Your task to perform on an android device: turn notification dots on Image 0: 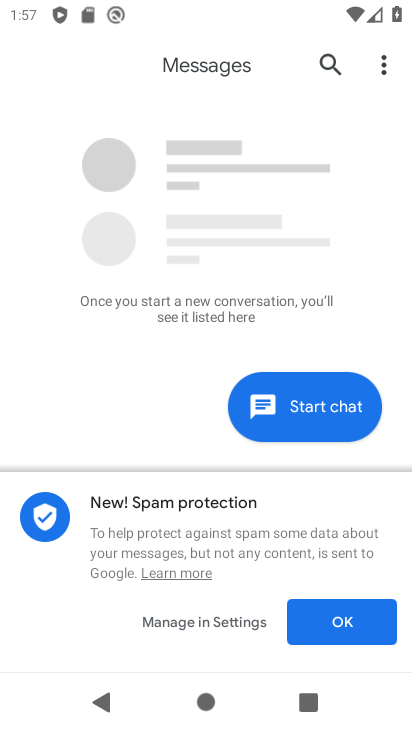
Step 0: press home button
Your task to perform on an android device: turn notification dots on Image 1: 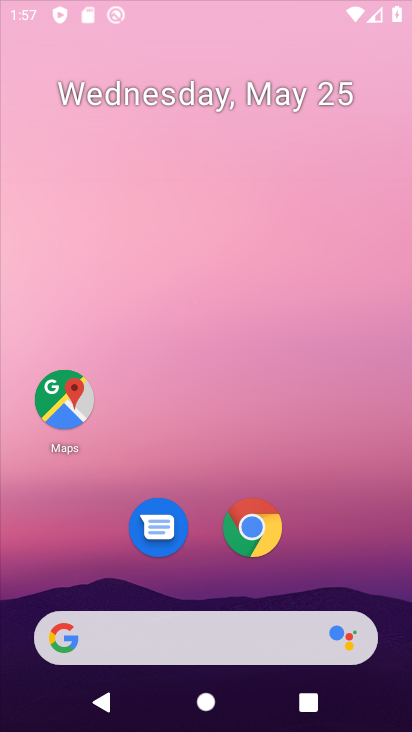
Step 1: drag from (218, 529) to (340, 10)
Your task to perform on an android device: turn notification dots on Image 2: 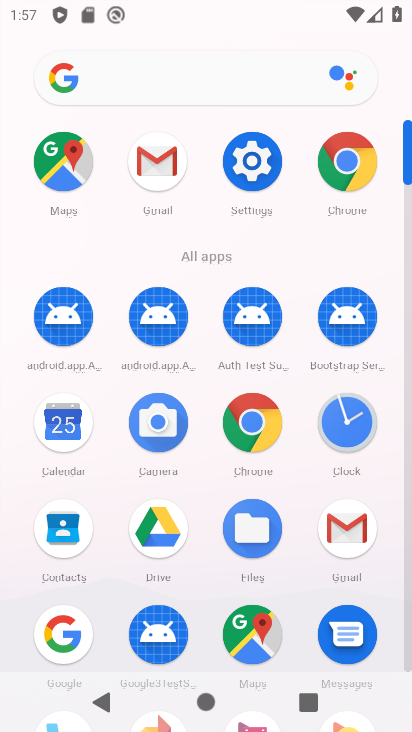
Step 2: click (284, 151)
Your task to perform on an android device: turn notification dots on Image 3: 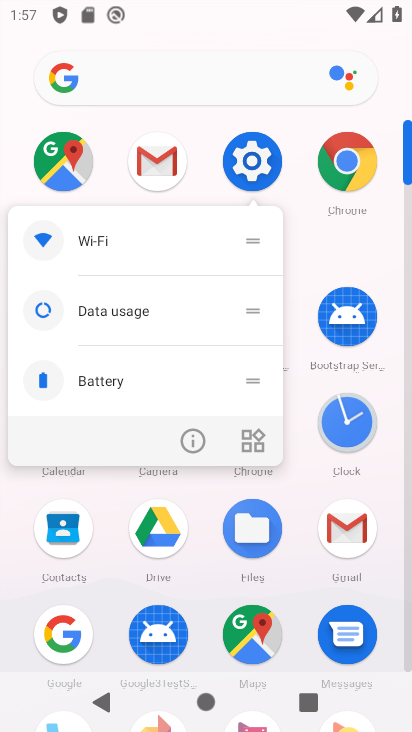
Step 3: click (184, 444)
Your task to perform on an android device: turn notification dots on Image 4: 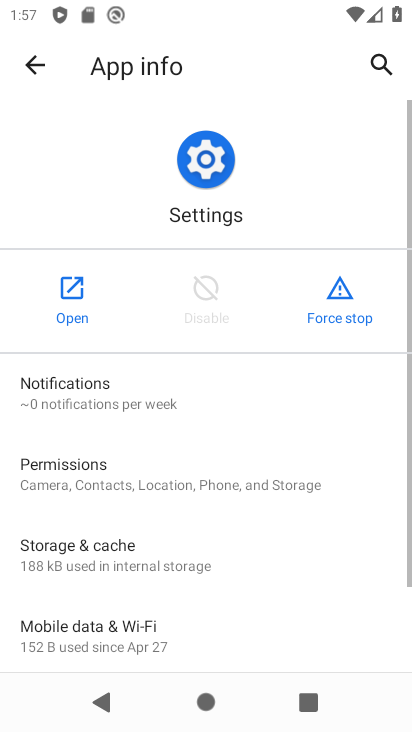
Step 4: click (54, 308)
Your task to perform on an android device: turn notification dots on Image 5: 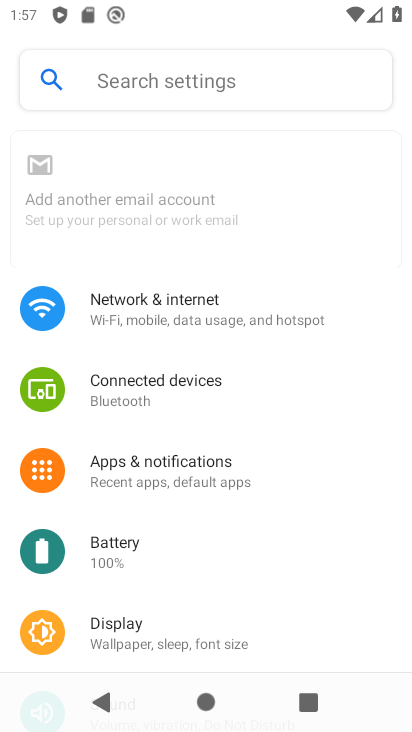
Step 5: drag from (242, 668) to (324, 317)
Your task to perform on an android device: turn notification dots on Image 6: 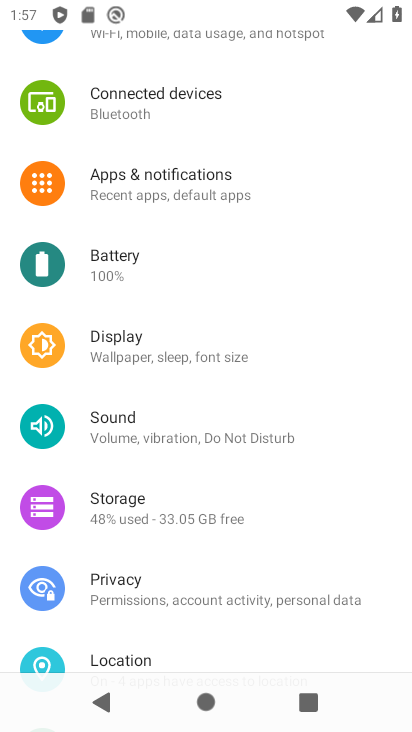
Step 6: click (183, 193)
Your task to perform on an android device: turn notification dots on Image 7: 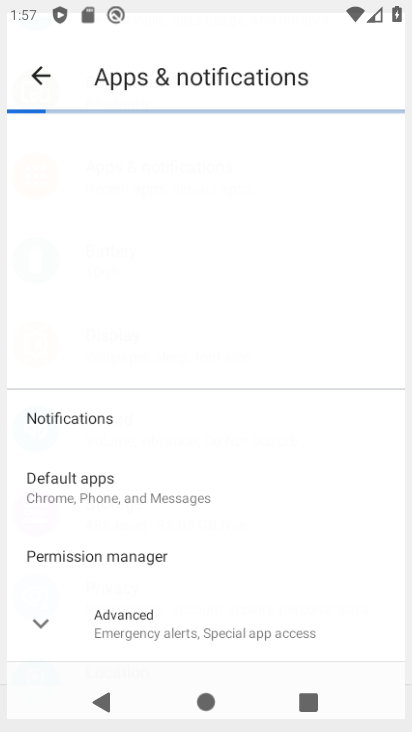
Step 7: drag from (264, 527) to (326, 185)
Your task to perform on an android device: turn notification dots on Image 8: 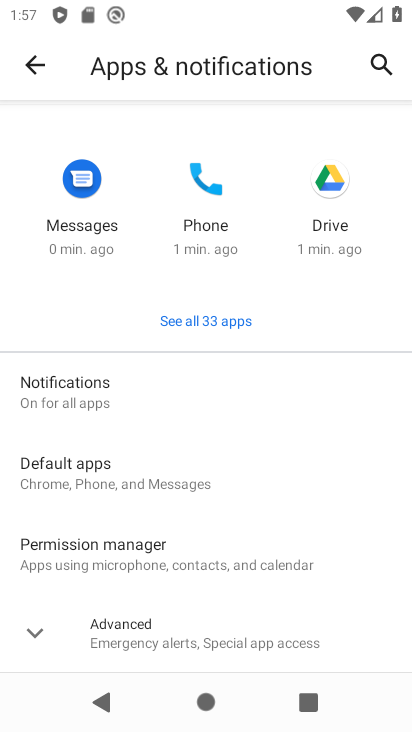
Step 8: click (124, 398)
Your task to perform on an android device: turn notification dots on Image 9: 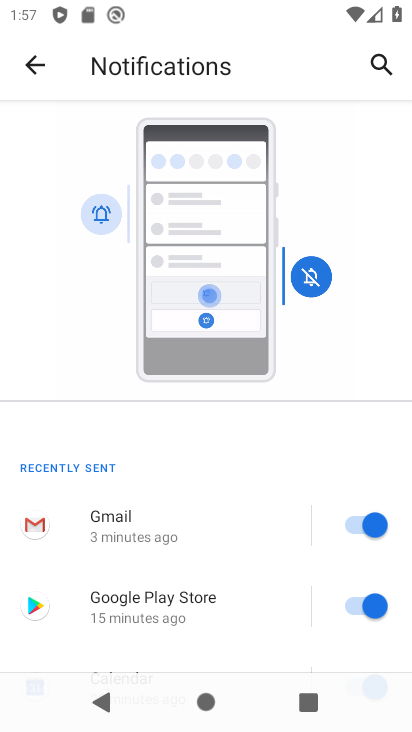
Step 9: drag from (222, 635) to (232, 343)
Your task to perform on an android device: turn notification dots on Image 10: 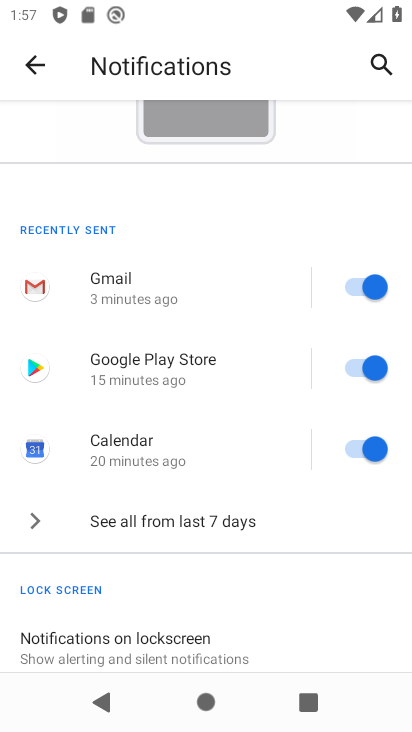
Step 10: drag from (215, 612) to (358, 151)
Your task to perform on an android device: turn notification dots on Image 11: 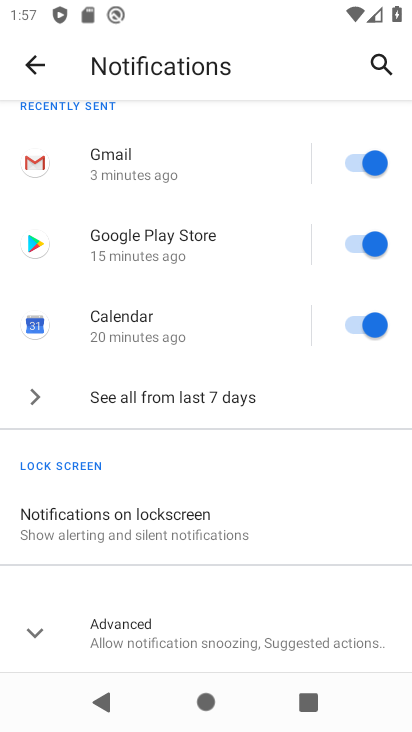
Step 11: click (121, 636)
Your task to perform on an android device: turn notification dots on Image 12: 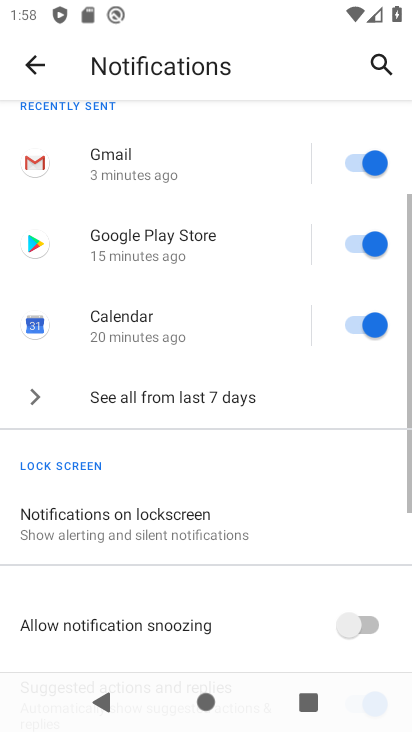
Step 12: drag from (179, 622) to (281, 325)
Your task to perform on an android device: turn notification dots on Image 13: 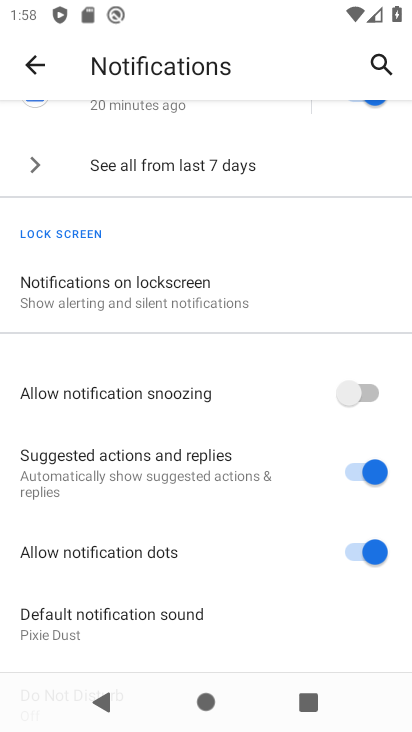
Step 13: click (366, 544)
Your task to perform on an android device: turn notification dots on Image 14: 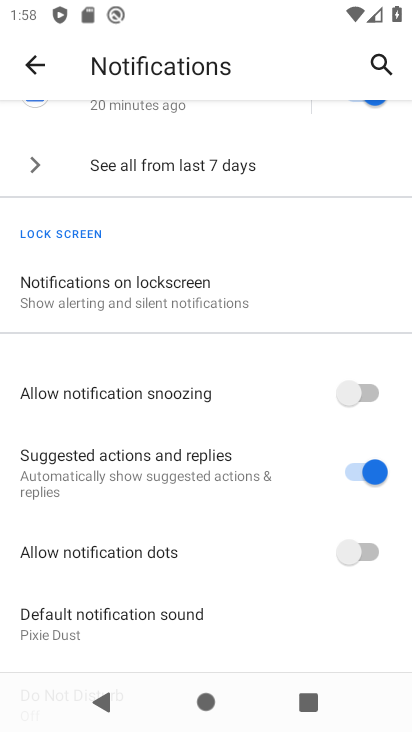
Step 14: click (346, 555)
Your task to perform on an android device: turn notification dots on Image 15: 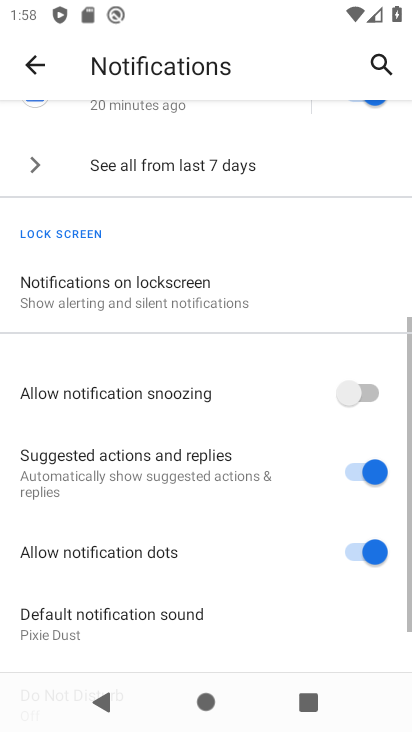
Step 15: task complete